Your task to perform on an android device: turn off data saver in the chrome app Image 0: 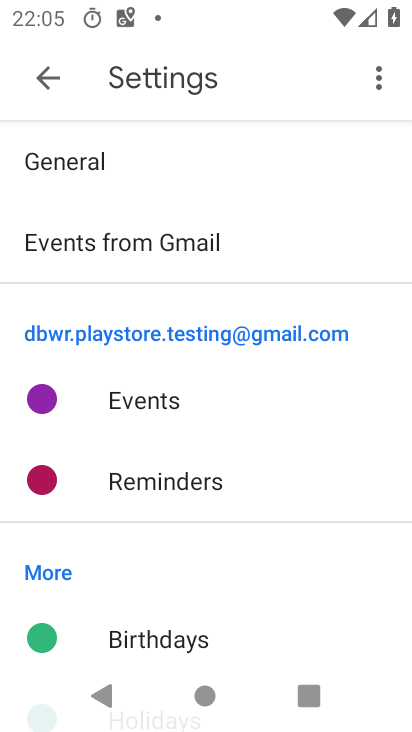
Step 0: press home button
Your task to perform on an android device: turn off data saver in the chrome app Image 1: 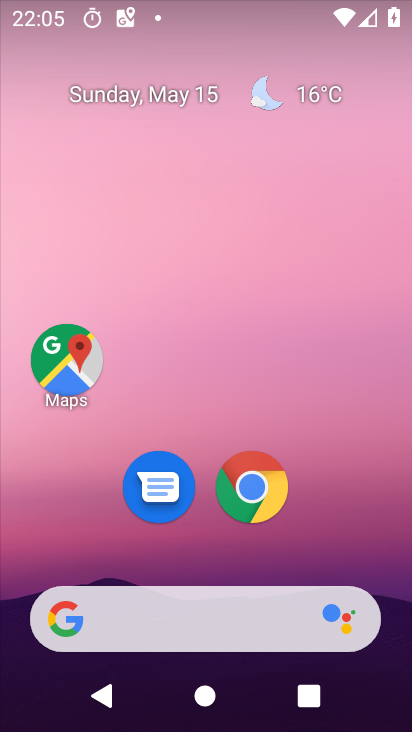
Step 1: click (242, 479)
Your task to perform on an android device: turn off data saver in the chrome app Image 2: 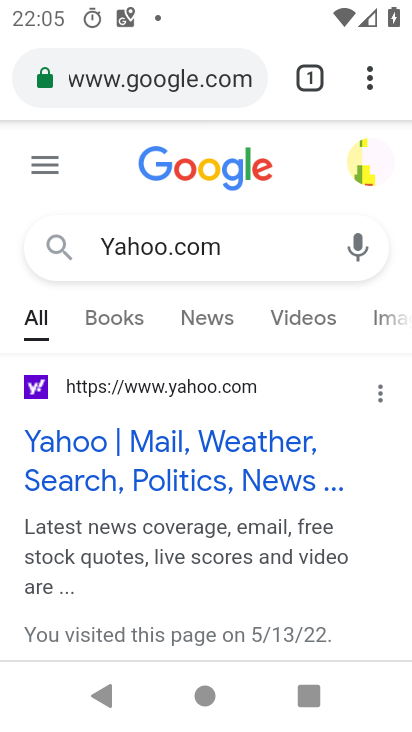
Step 2: click (371, 72)
Your task to perform on an android device: turn off data saver in the chrome app Image 3: 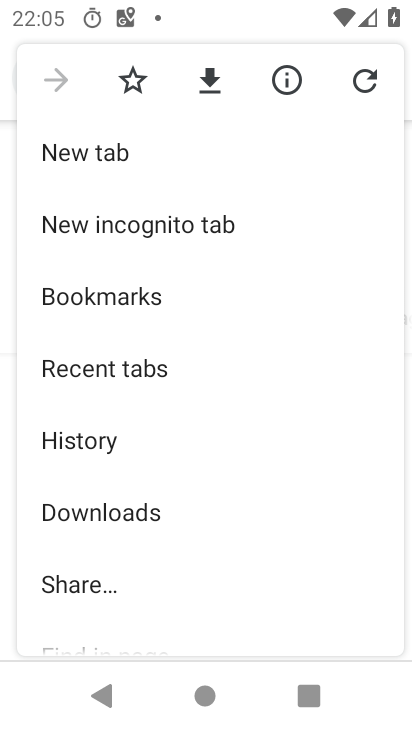
Step 3: drag from (226, 589) to (239, 297)
Your task to perform on an android device: turn off data saver in the chrome app Image 4: 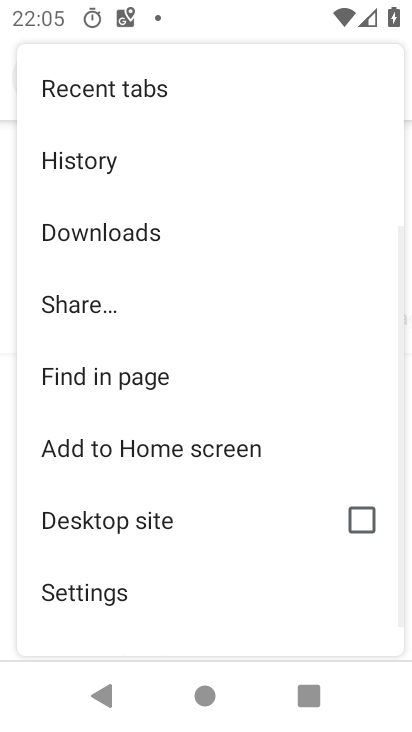
Step 4: click (83, 582)
Your task to perform on an android device: turn off data saver in the chrome app Image 5: 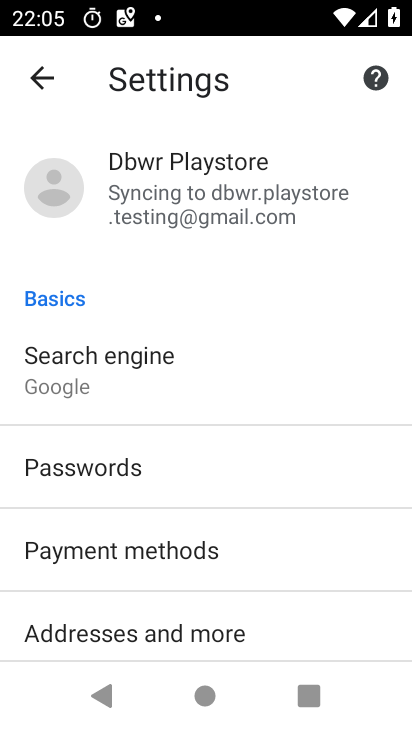
Step 5: drag from (309, 613) to (286, 214)
Your task to perform on an android device: turn off data saver in the chrome app Image 6: 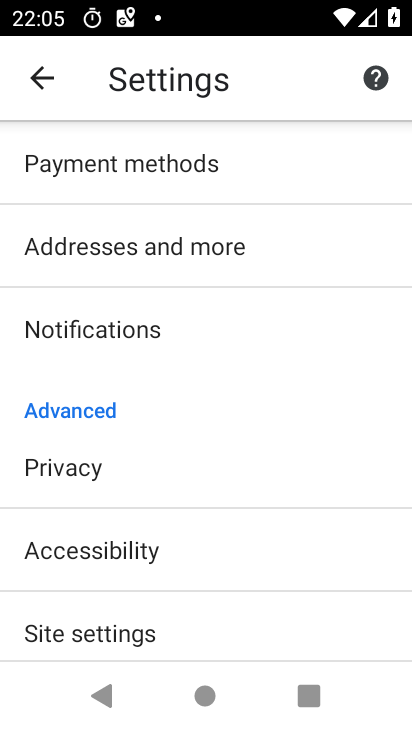
Step 6: drag from (272, 615) to (282, 388)
Your task to perform on an android device: turn off data saver in the chrome app Image 7: 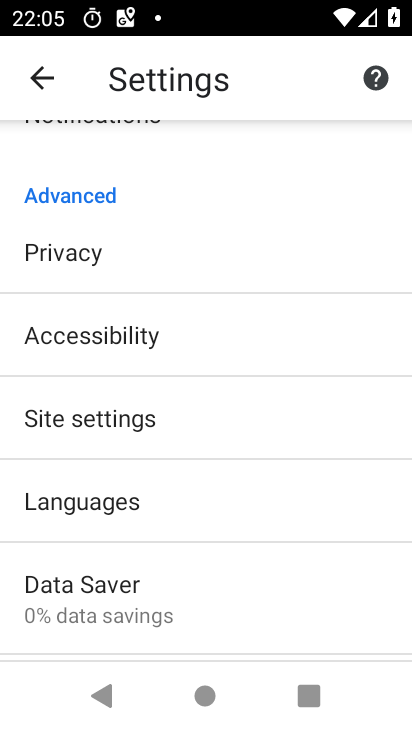
Step 7: click (66, 587)
Your task to perform on an android device: turn off data saver in the chrome app Image 8: 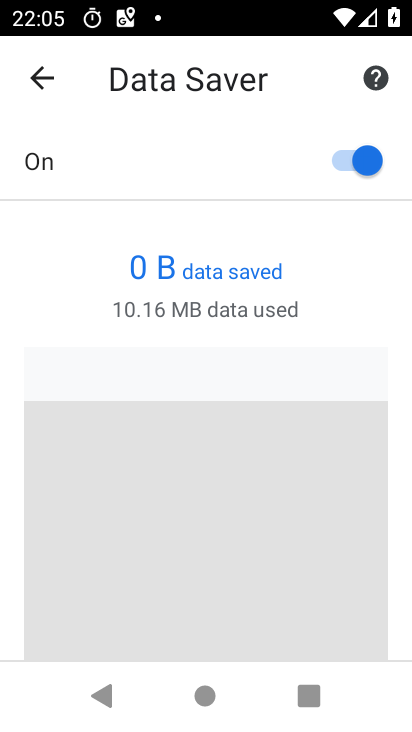
Step 8: click (346, 157)
Your task to perform on an android device: turn off data saver in the chrome app Image 9: 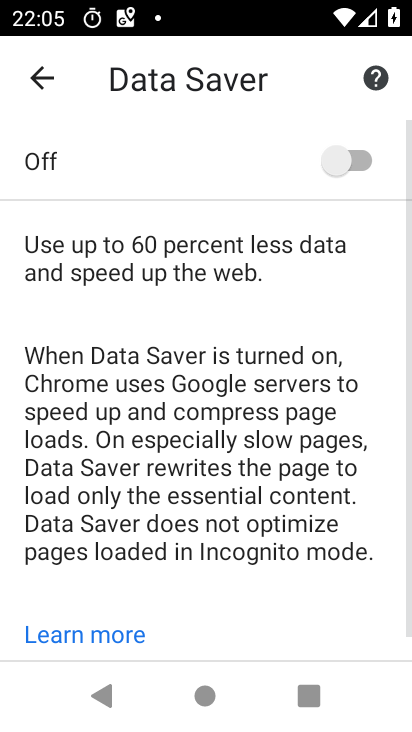
Step 9: task complete